Your task to perform on an android device: Open Wikipedia Image 0: 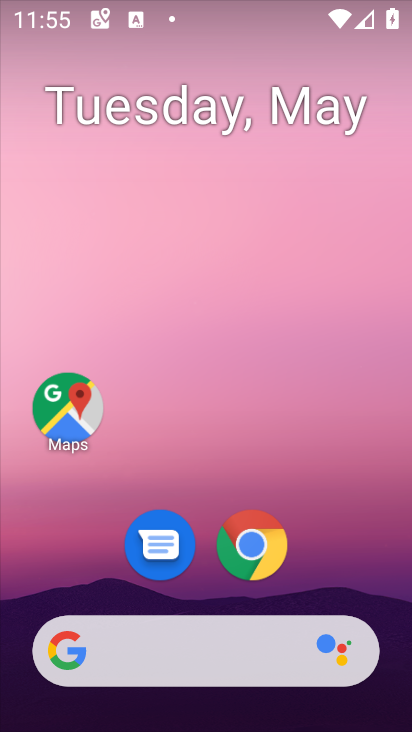
Step 0: click (254, 548)
Your task to perform on an android device: Open Wikipedia Image 1: 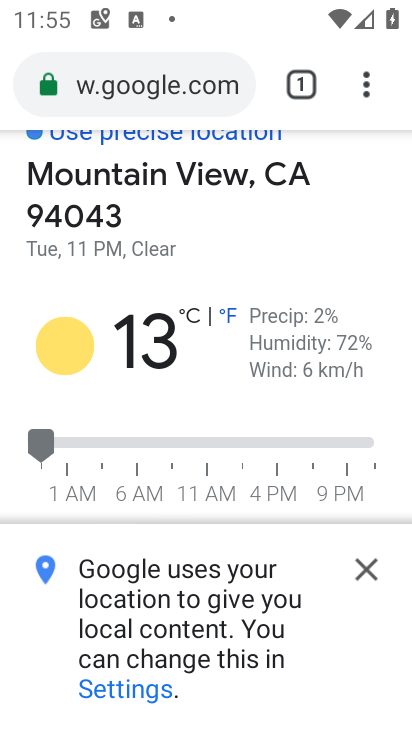
Step 1: click (127, 88)
Your task to perform on an android device: Open Wikipedia Image 2: 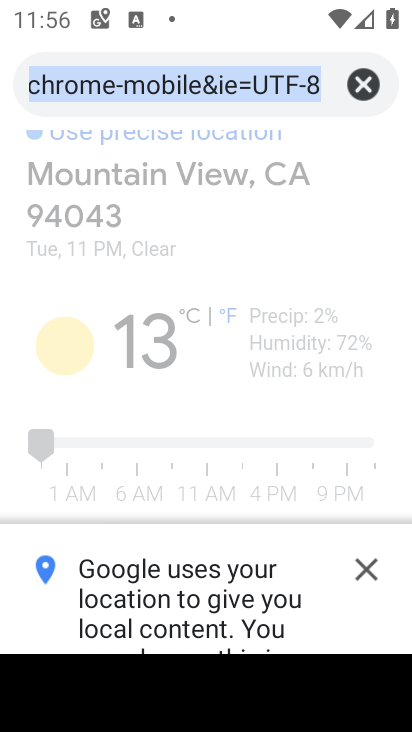
Step 2: type "wikipedia"
Your task to perform on an android device: Open Wikipedia Image 3: 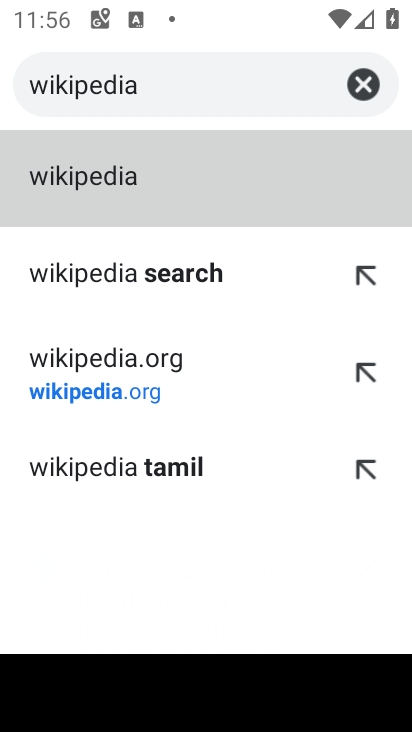
Step 3: click (131, 191)
Your task to perform on an android device: Open Wikipedia Image 4: 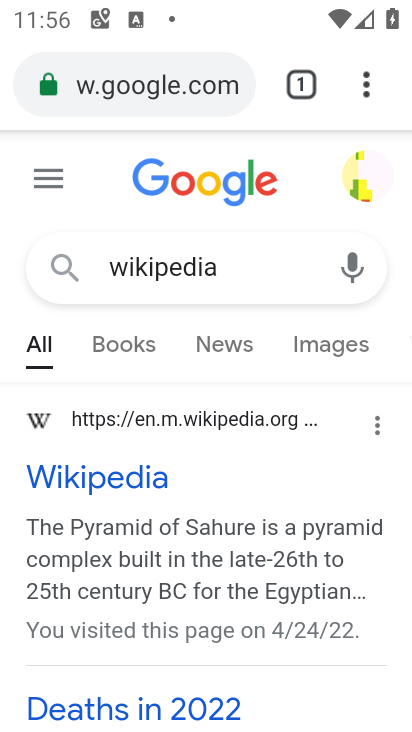
Step 4: task complete